Your task to perform on an android device: Go to wifi settings Image 0: 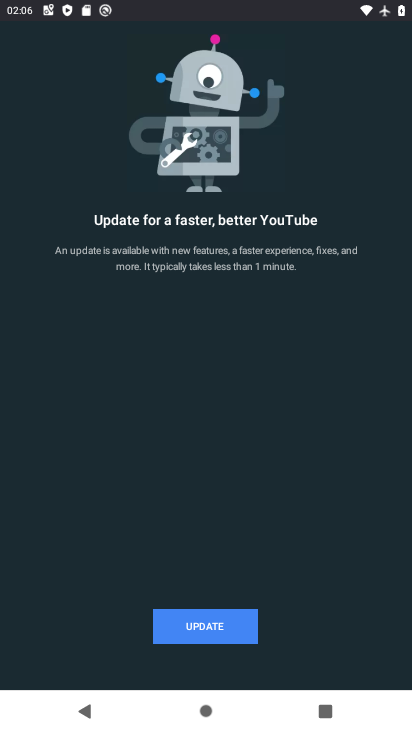
Step 0: press home button
Your task to perform on an android device: Go to wifi settings Image 1: 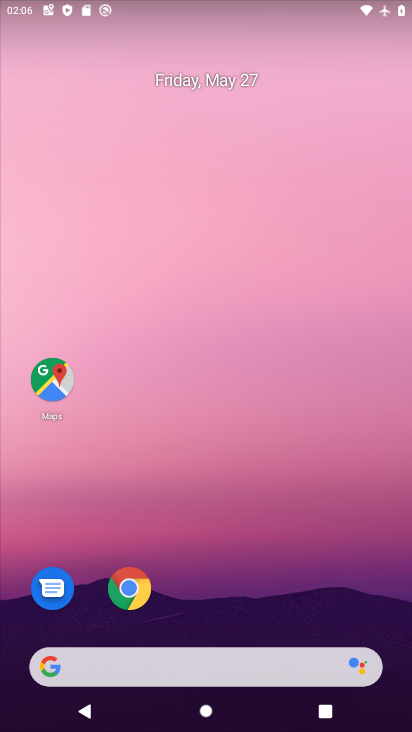
Step 1: drag from (391, 609) to (332, 140)
Your task to perform on an android device: Go to wifi settings Image 2: 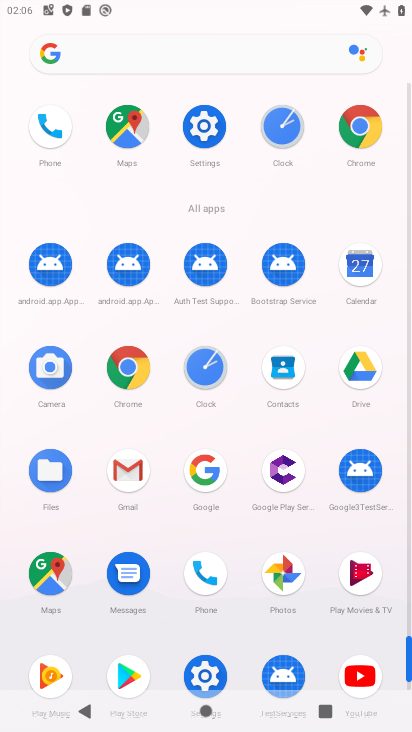
Step 2: click (205, 671)
Your task to perform on an android device: Go to wifi settings Image 3: 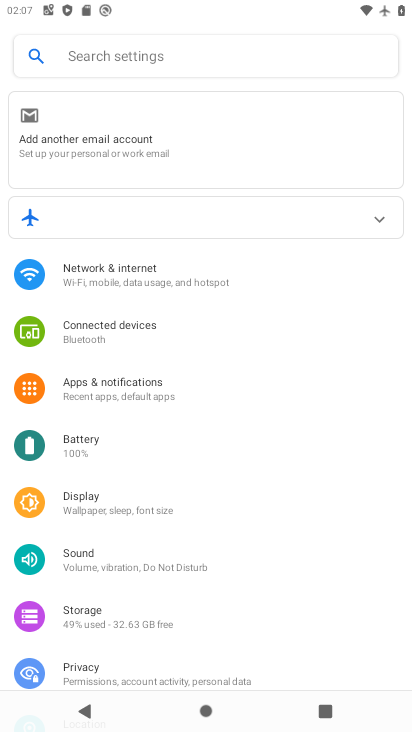
Step 3: click (81, 263)
Your task to perform on an android device: Go to wifi settings Image 4: 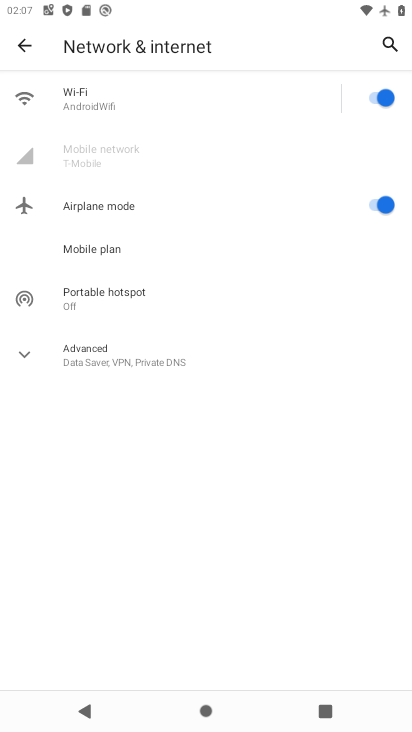
Step 4: click (69, 82)
Your task to perform on an android device: Go to wifi settings Image 5: 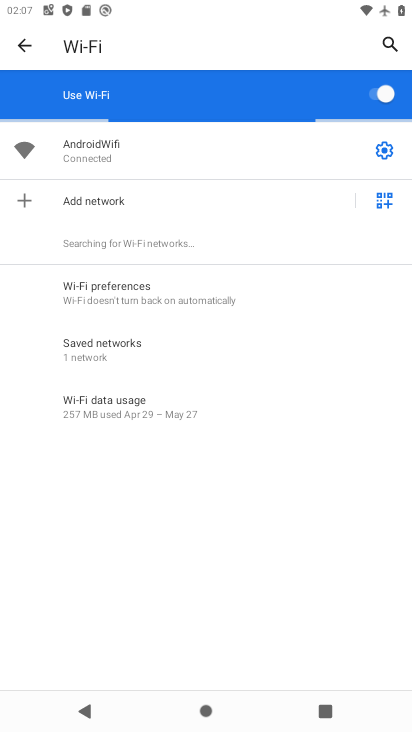
Step 5: click (386, 147)
Your task to perform on an android device: Go to wifi settings Image 6: 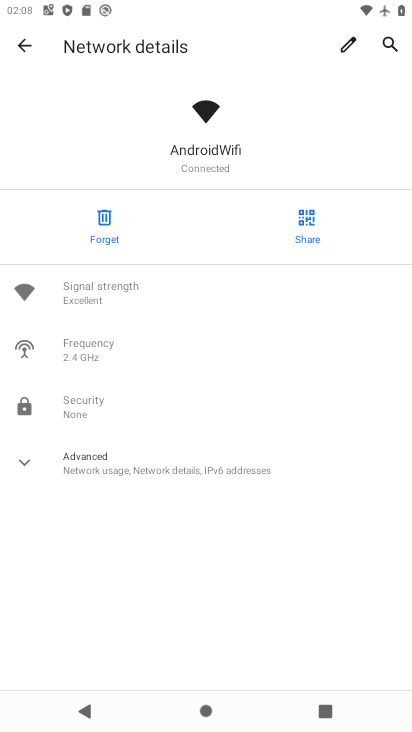
Step 6: task complete